Your task to perform on an android device: Go to eBay Image 0: 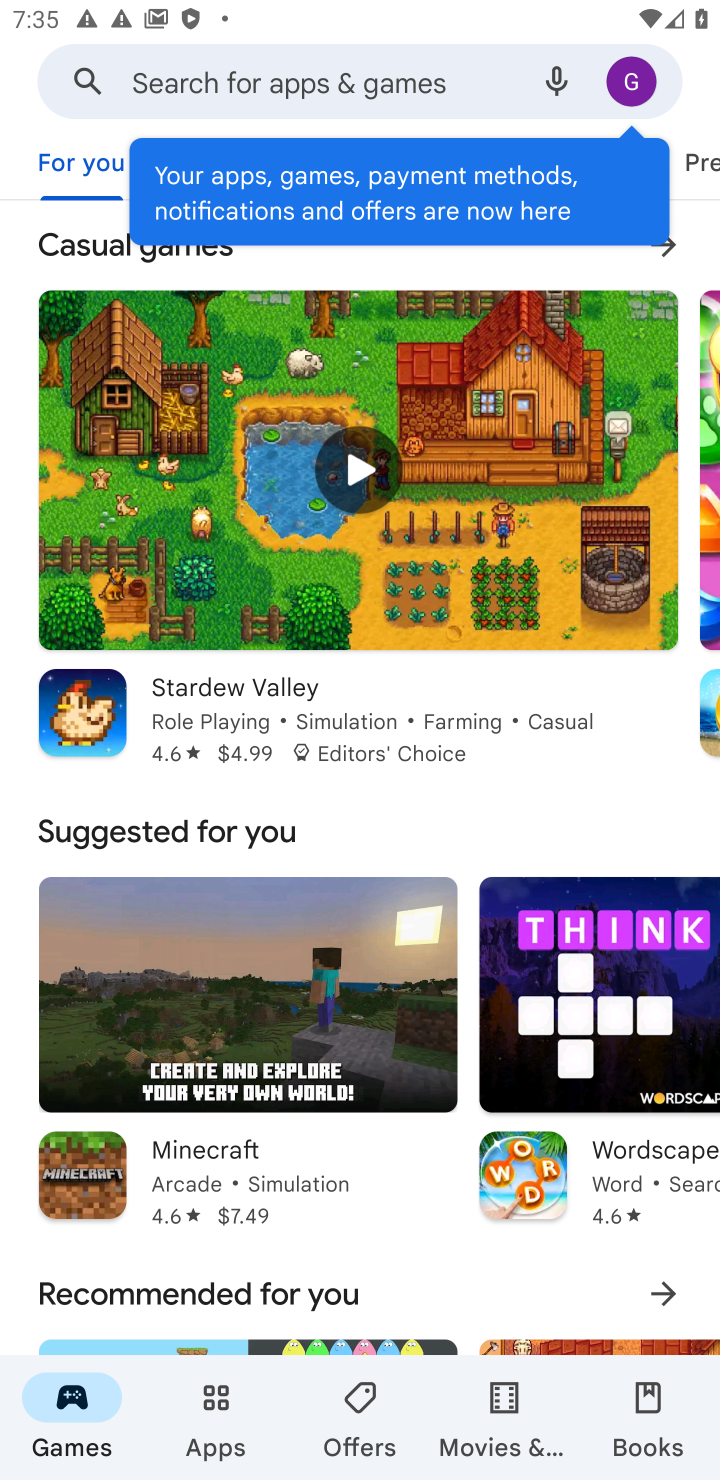
Step 0: press home button
Your task to perform on an android device: Go to eBay Image 1: 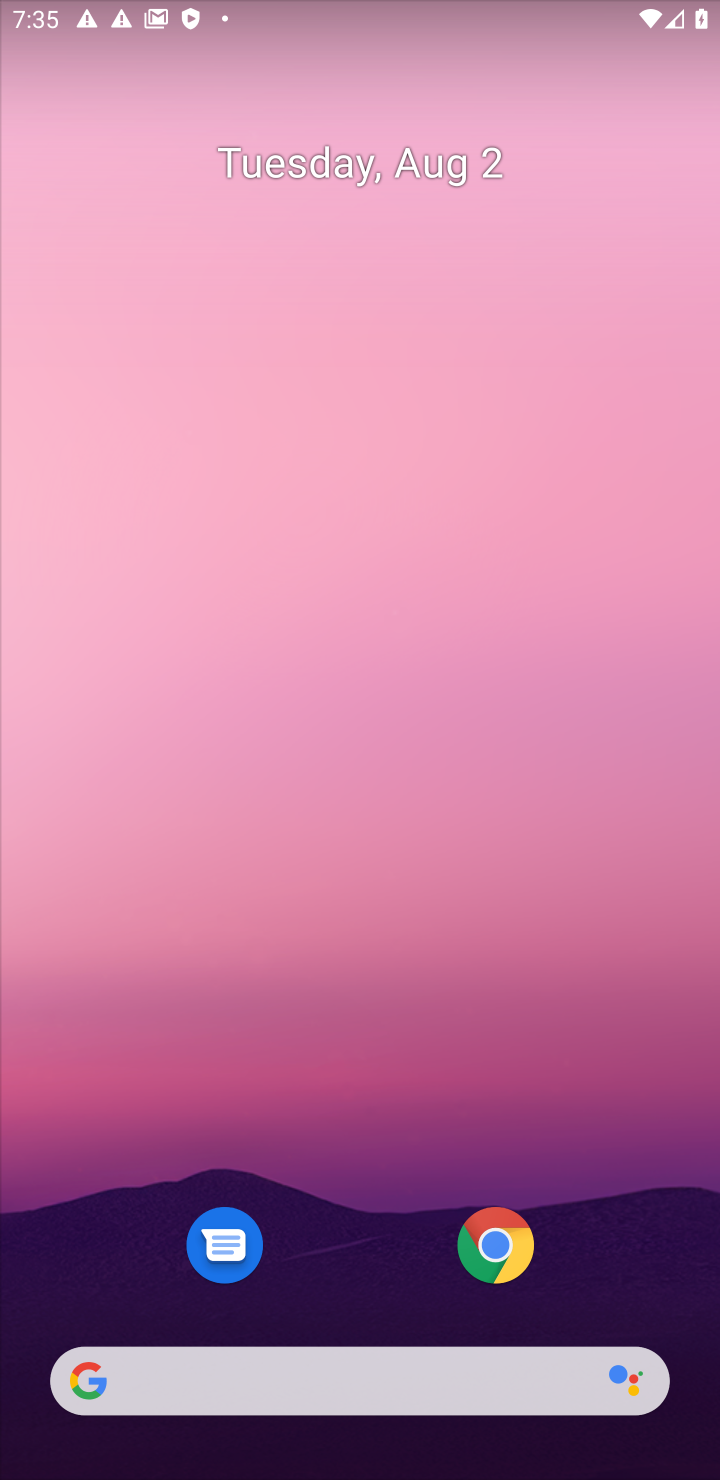
Step 1: click (501, 1271)
Your task to perform on an android device: Go to eBay Image 2: 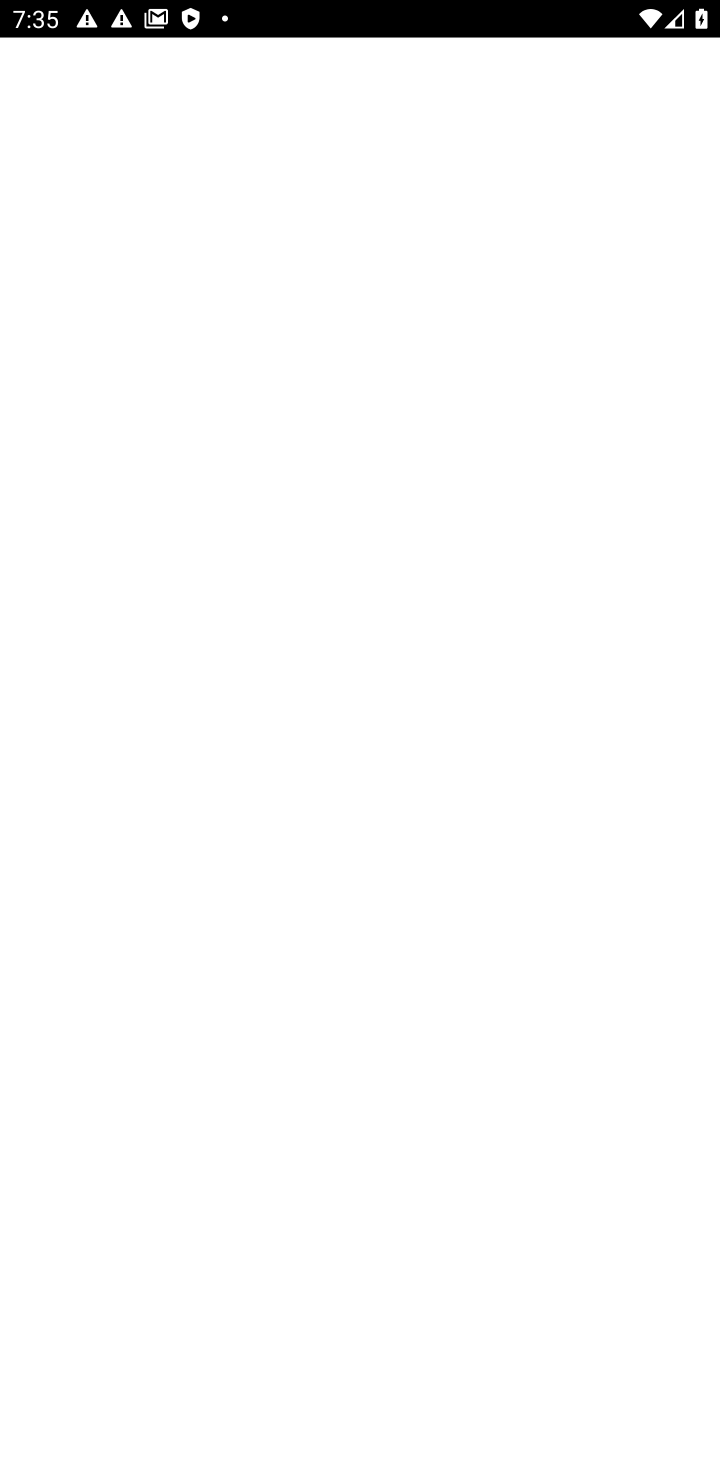
Step 2: click (501, 1271)
Your task to perform on an android device: Go to eBay Image 3: 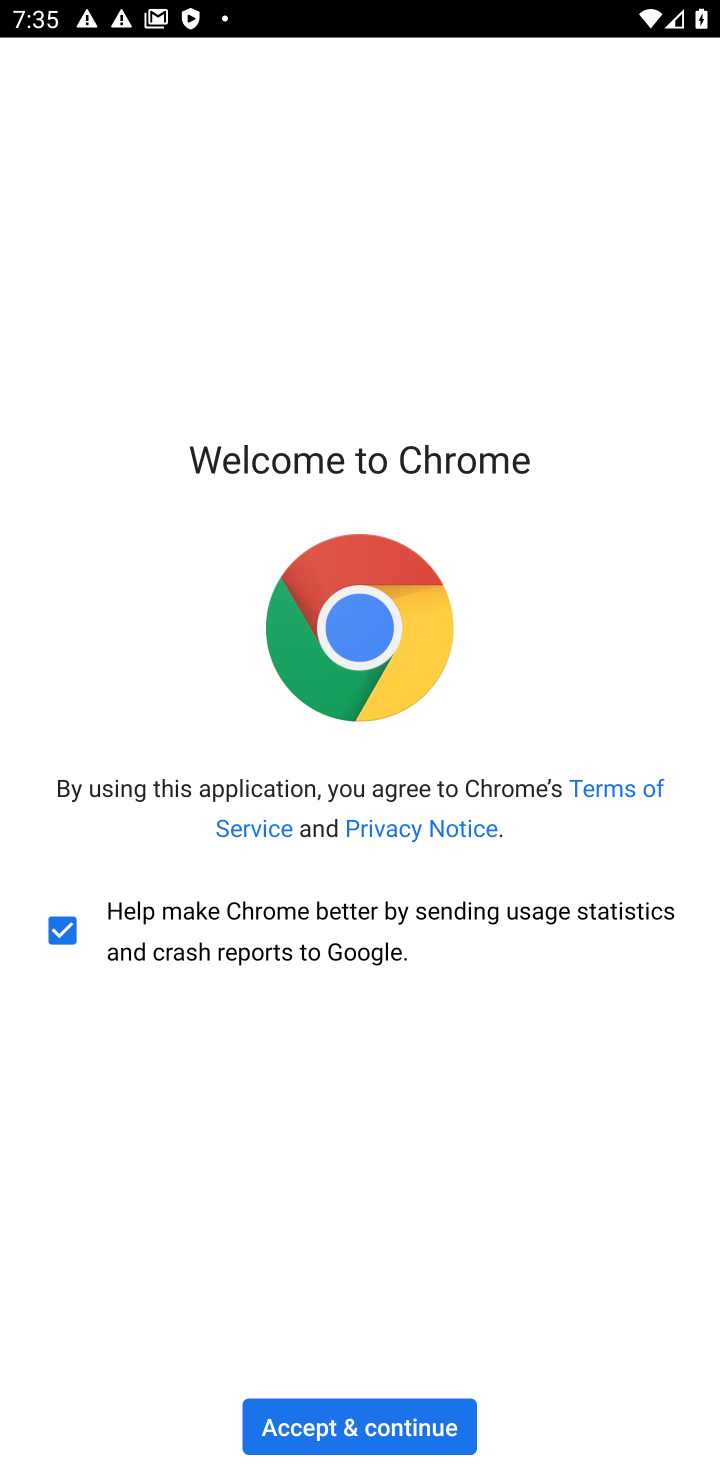
Step 3: click (280, 1415)
Your task to perform on an android device: Go to eBay Image 4: 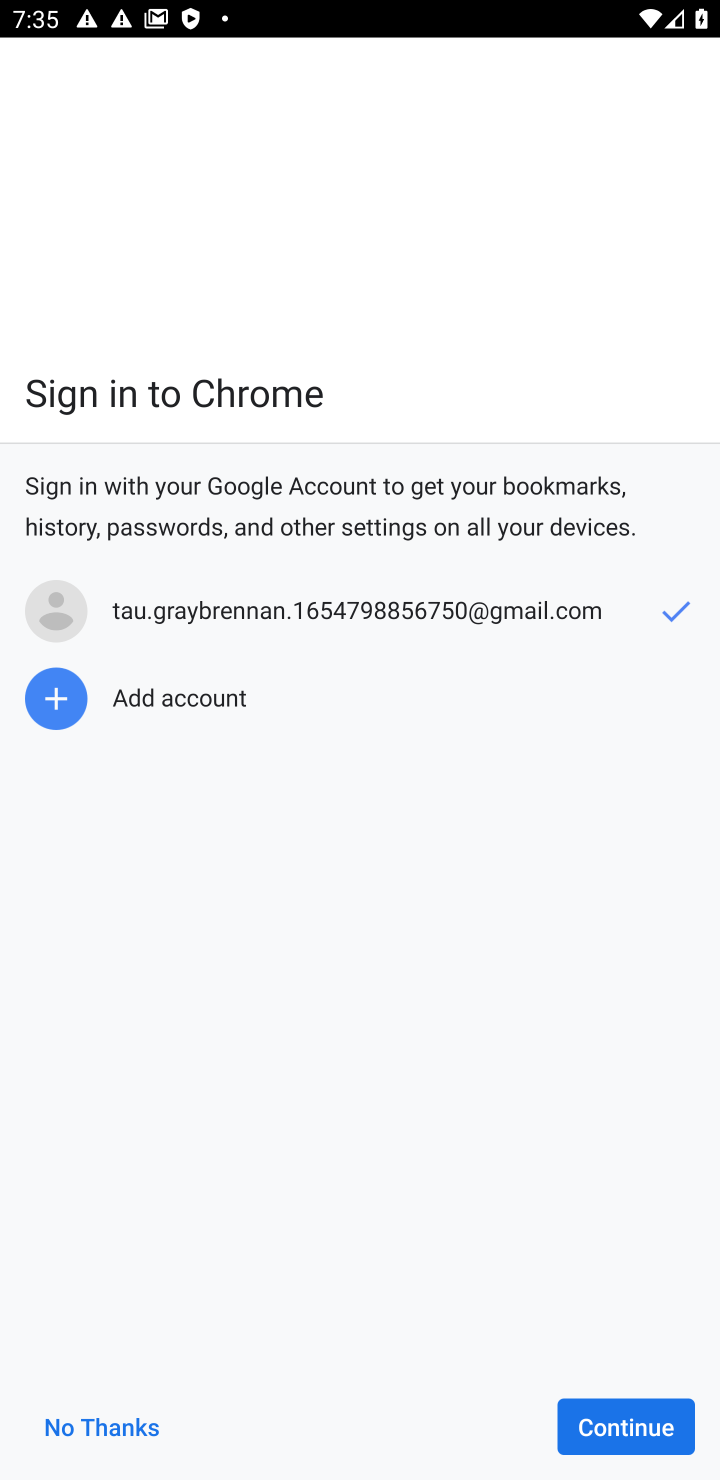
Step 4: click (630, 1434)
Your task to perform on an android device: Go to eBay Image 5: 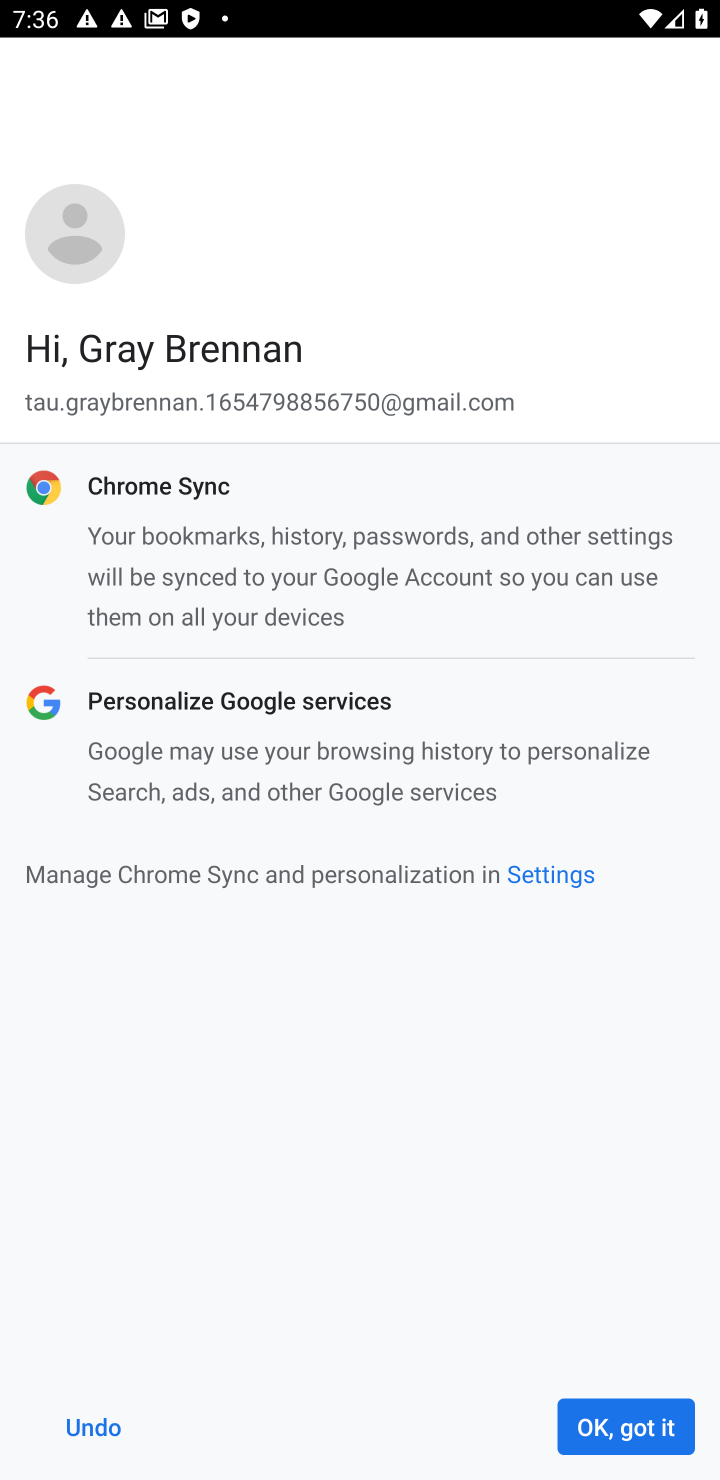
Step 5: click (628, 1429)
Your task to perform on an android device: Go to eBay Image 6: 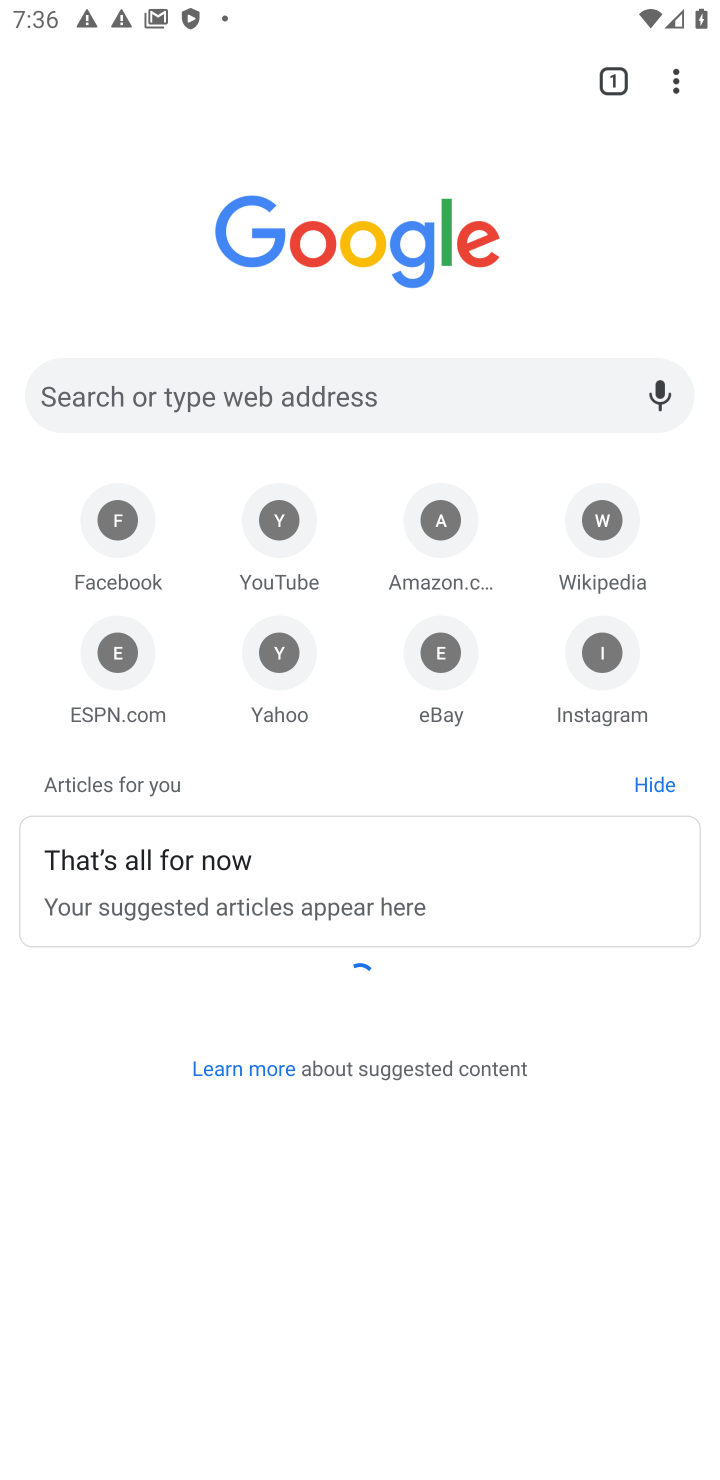
Step 6: click (444, 674)
Your task to perform on an android device: Go to eBay Image 7: 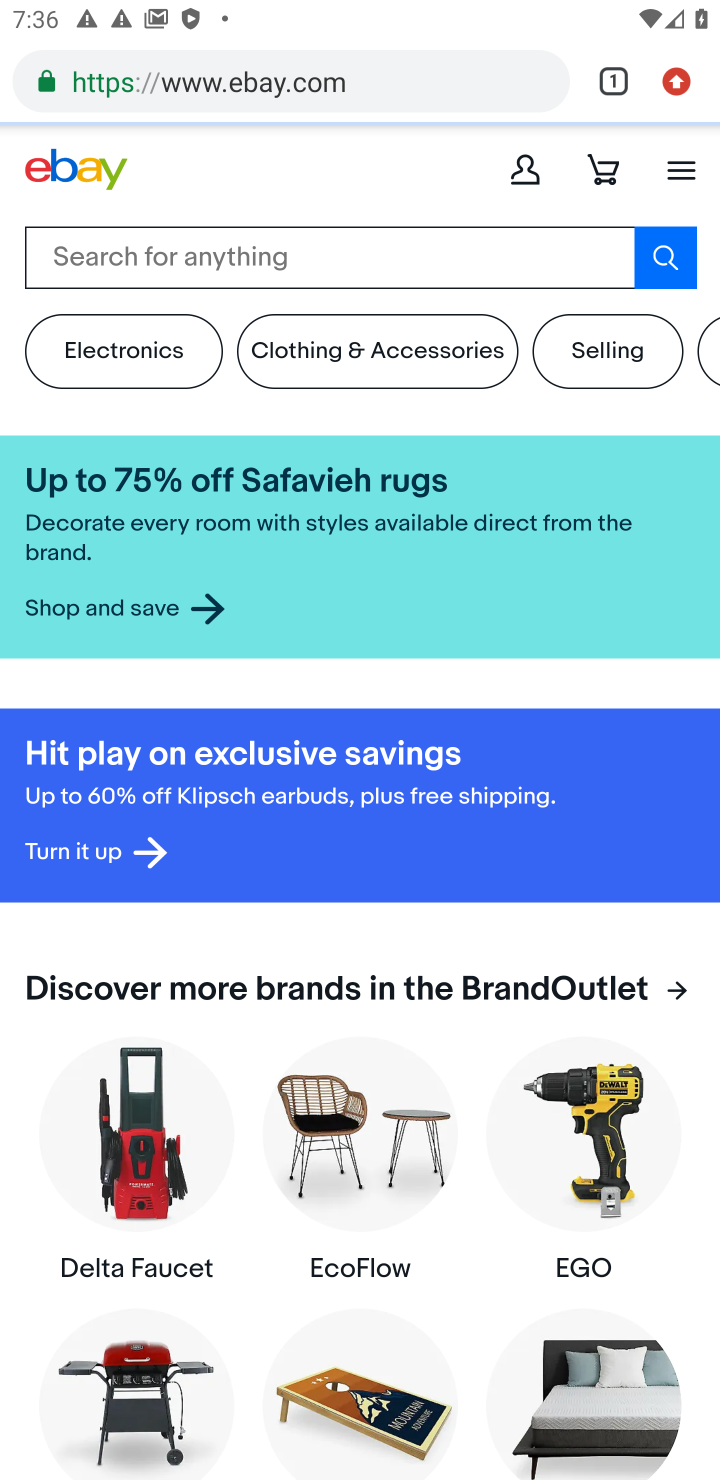
Step 7: task complete